Your task to perform on an android device: Open the map Image 0: 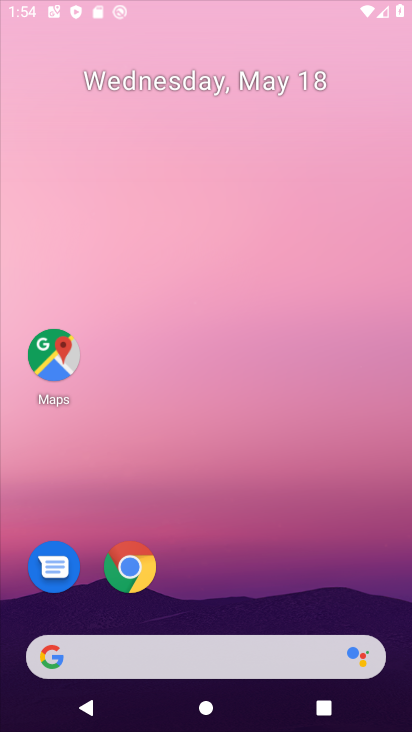
Step 0: drag from (263, 551) to (304, 65)
Your task to perform on an android device: Open the map Image 1: 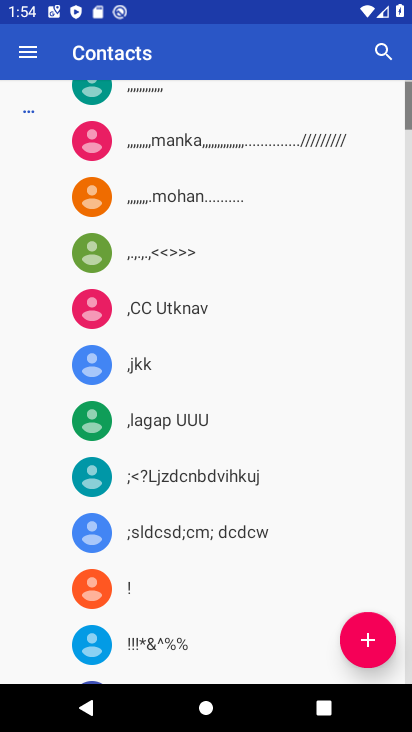
Step 1: press home button
Your task to perform on an android device: Open the map Image 2: 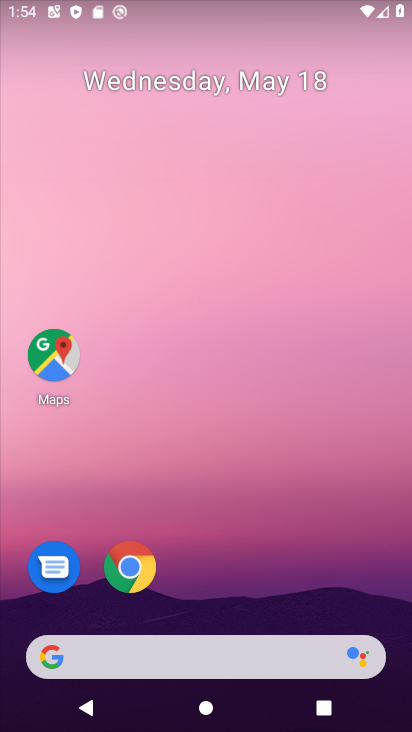
Step 2: click (59, 356)
Your task to perform on an android device: Open the map Image 3: 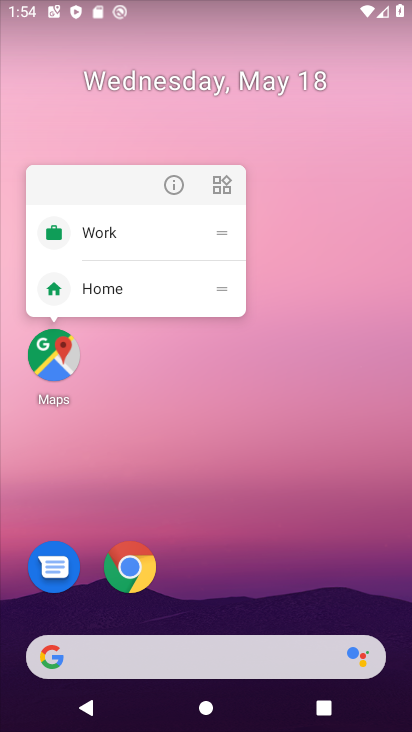
Step 3: click (45, 349)
Your task to perform on an android device: Open the map Image 4: 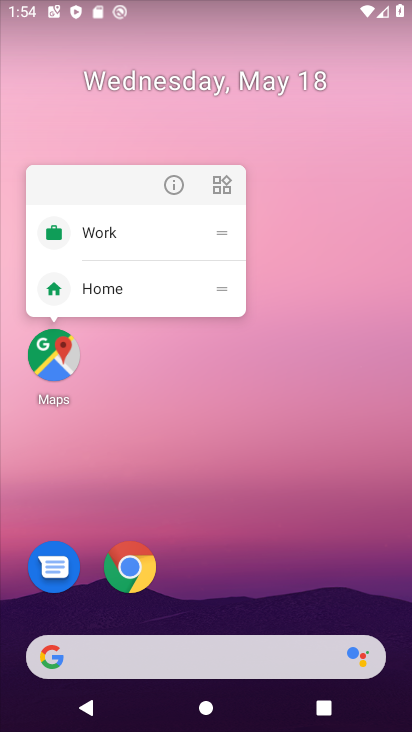
Step 4: click (47, 362)
Your task to perform on an android device: Open the map Image 5: 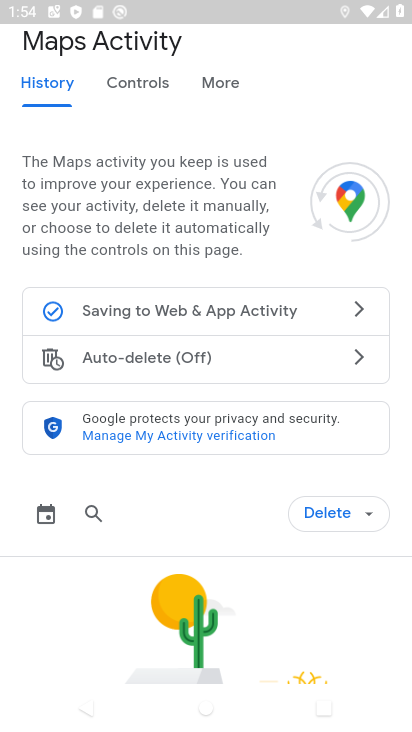
Step 5: task complete